Your task to perform on an android device: Is it going to rain this weekend? Image 0: 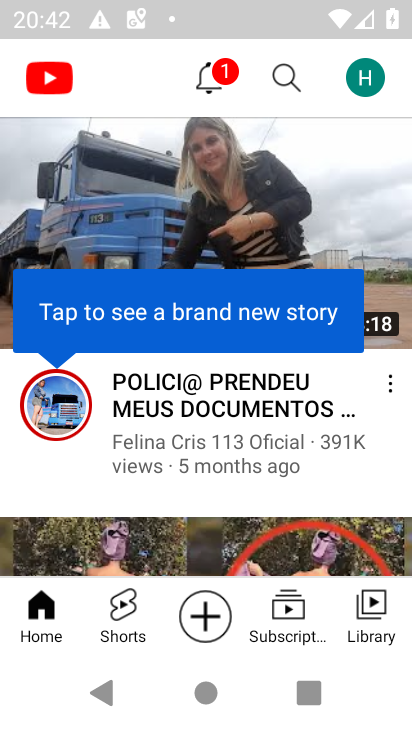
Step 0: press home button
Your task to perform on an android device: Is it going to rain this weekend? Image 1: 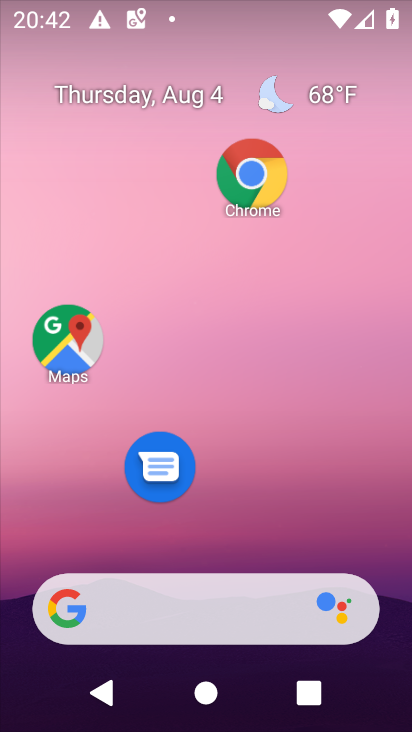
Step 1: click (230, 180)
Your task to perform on an android device: Is it going to rain this weekend? Image 2: 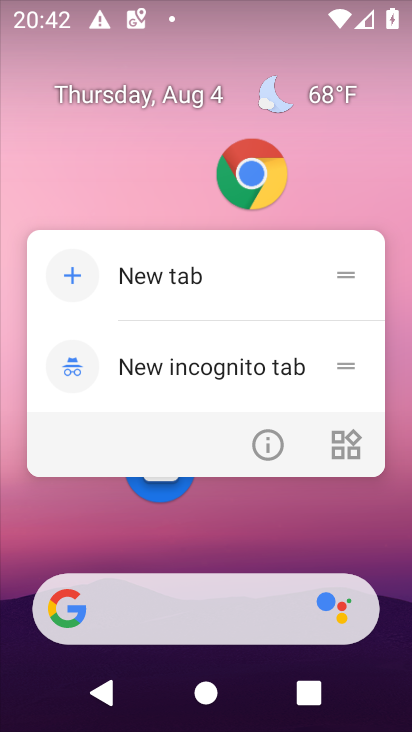
Step 2: click (232, 187)
Your task to perform on an android device: Is it going to rain this weekend? Image 3: 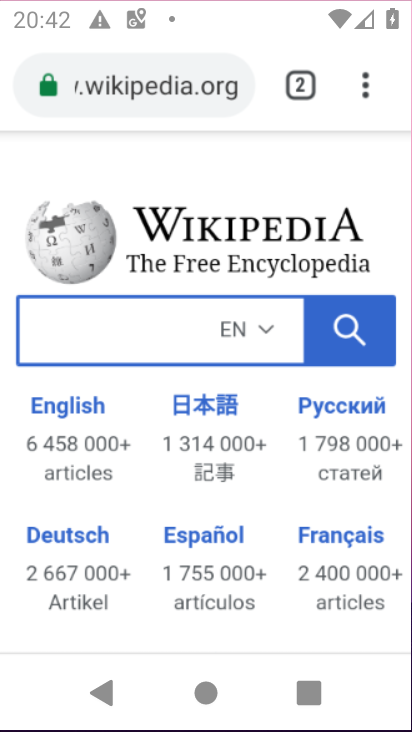
Step 3: click (232, 187)
Your task to perform on an android device: Is it going to rain this weekend? Image 4: 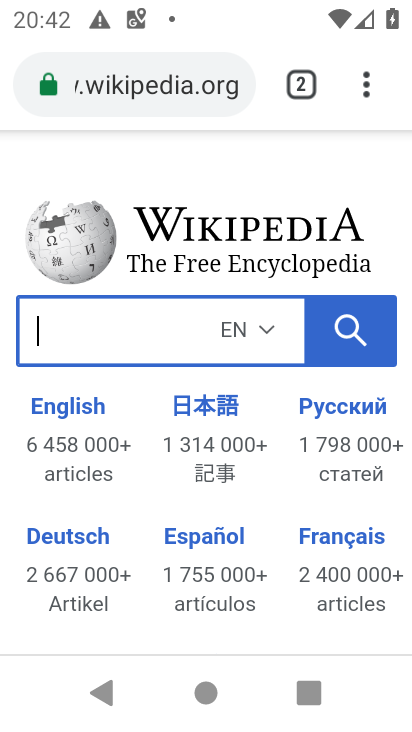
Step 4: click (176, 94)
Your task to perform on an android device: Is it going to rain this weekend? Image 5: 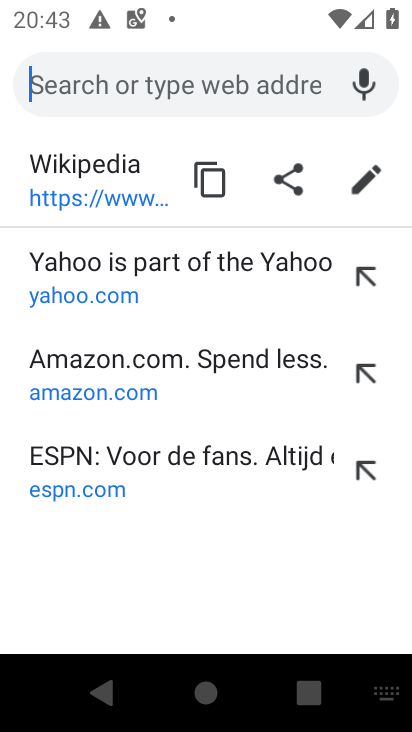
Step 5: type "Is it going to rain this weekend?"
Your task to perform on an android device: Is it going to rain this weekend? Image 6: 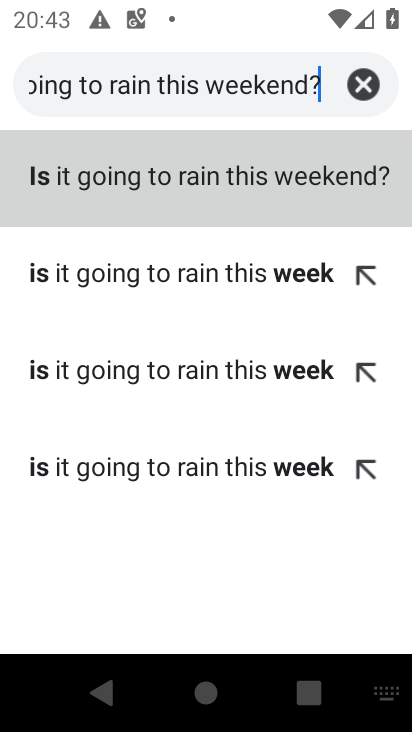
Step 6: click (190, 199)
Your task to perform on an android device: Is it going to rain this weekend? Image 7: 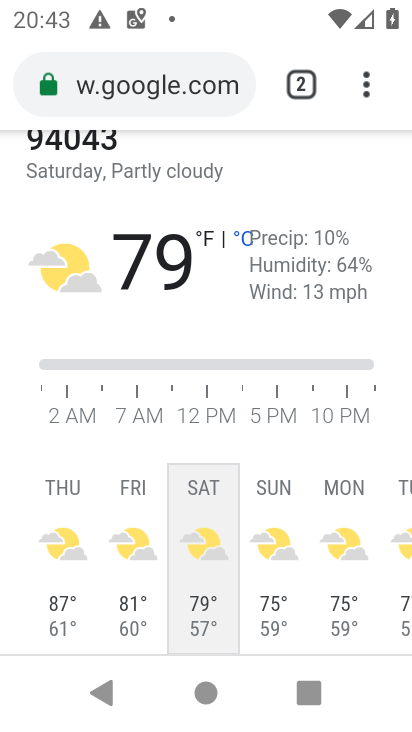
Step 7: task complete